Your task to perform on an android device: set default search engine in the chrome app Image 0: 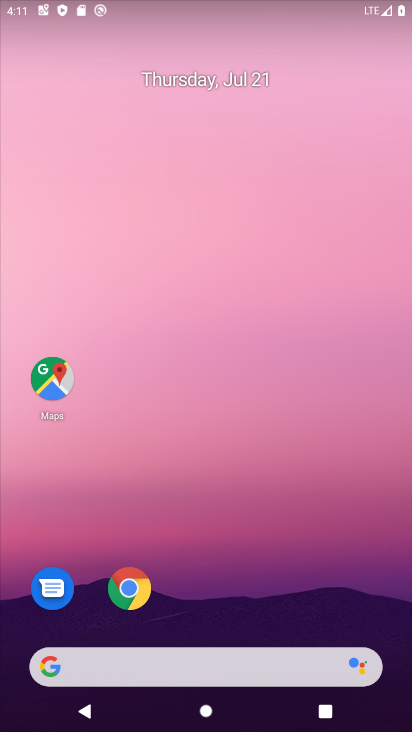
Step 0: drag from (301, 613) to (191, 4)
Your task to perform on an android device: set default search engine in the chrome app Image 1: 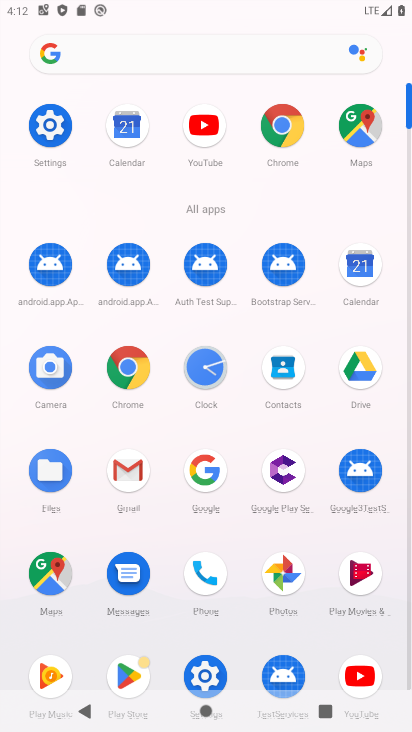
Step 1: click (127, 367)
Your task to perform on an android device: set default search engine in the chrome app Image 2: 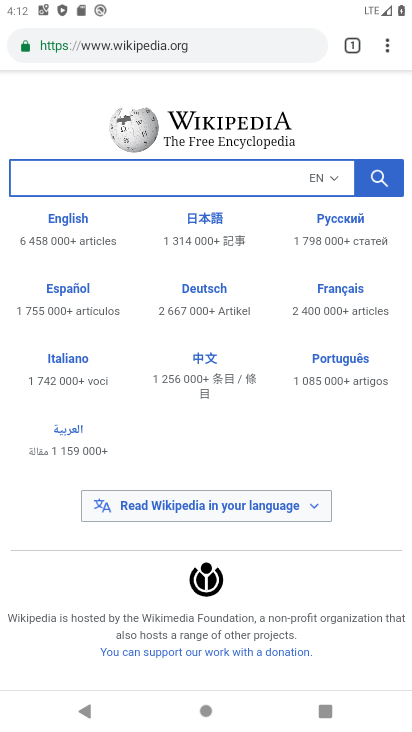
Step 2: click (390, 42)
Your task to perform on an android device: set default search engine in the chrome app Image 3: 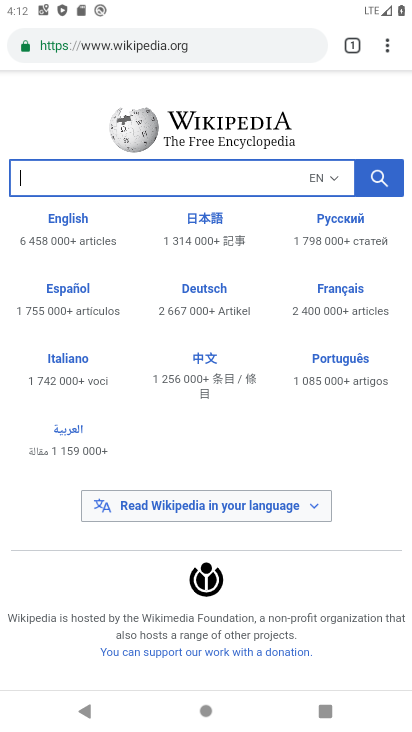
Step 3: drag from (392, 37) to (239, 505)
Your task to perform on an android device: set default search engine in the chrome app Image 4: 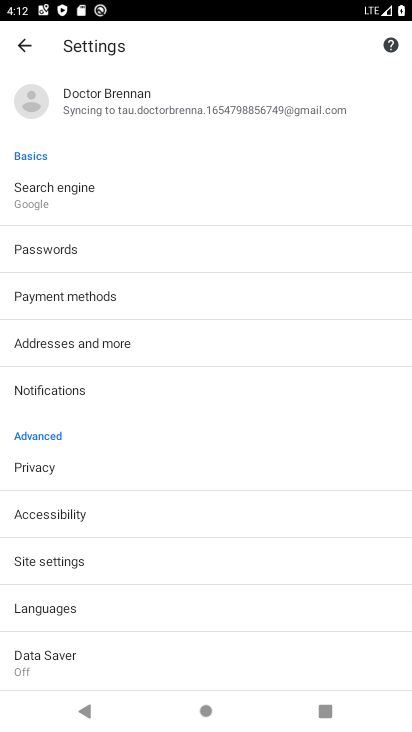
Step 4: click (26, 201)
Your task to perform on an android device: set default search engine in the chrome app Image 5: 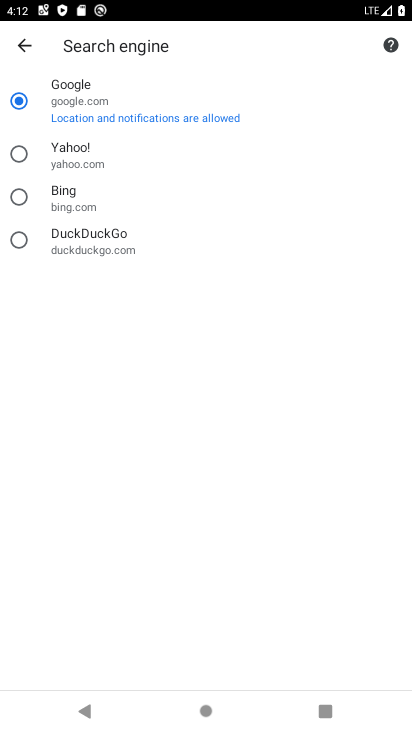
Step 5: task complete